Your task to perform on an android device: turn off notifications settings in the gmail app Image 0: 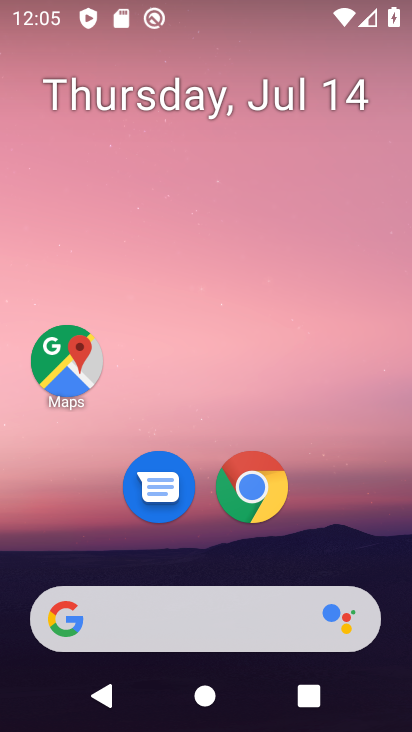
Step 0: drag from (205, 497) to (167, 203)
Your task to perform on an android device: turn off notifications settings in the gmail app Image 1: 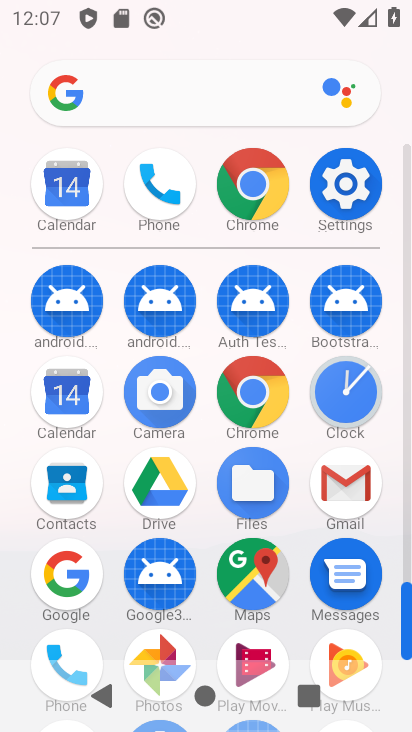
Step 1: click (347, 499)
Your task to perform on an android device: turn off notifications settings in the gmail app Image 2: 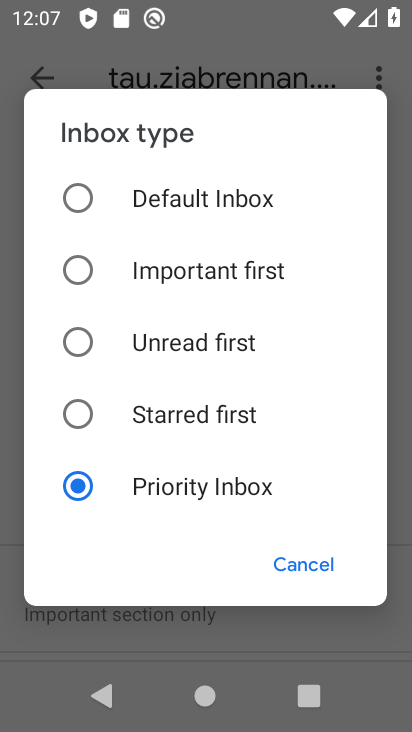
Step 2: click (318, 568)
Your task to perform on an android device: turn off notifications settings in the gmail app Image 3: 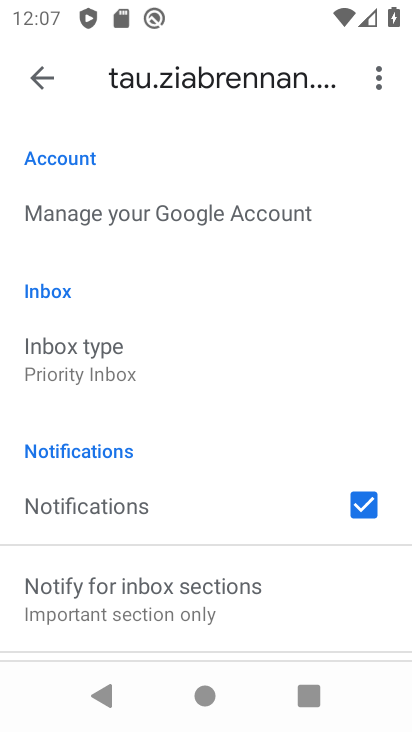
Step 3: click (46, 86)
Your task to perform on an android device: turn off notifications settings in the gmail app Image 4: 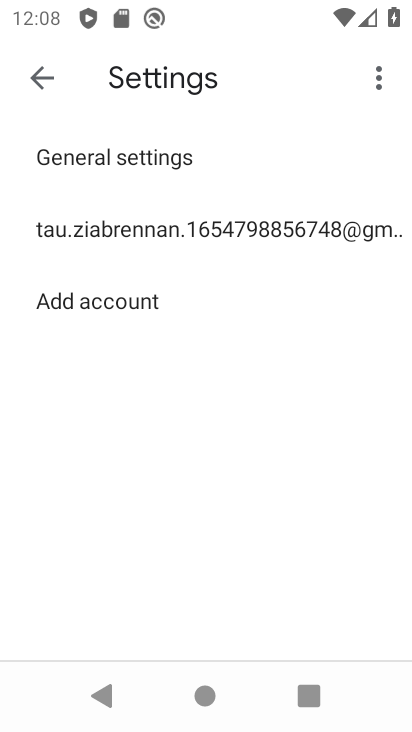
Step 4: click (94, 166)
Your task to perform on an android device: turn off notifications settings in the gmail app Image 5: 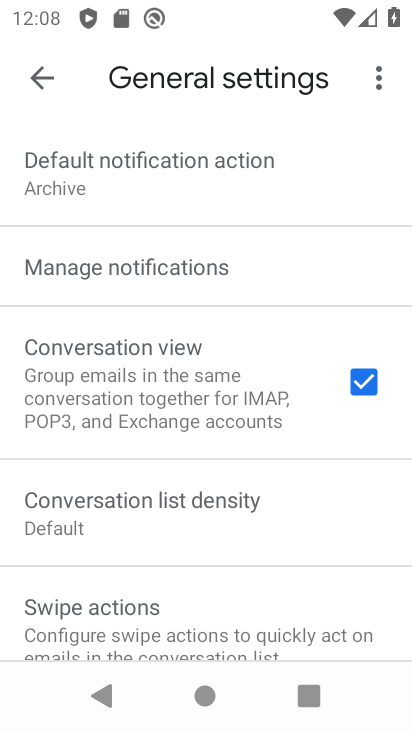
Step 5: click (145, 273)
Your task to perform on an android device: turn off notifications settings in the gmail app Image 6: 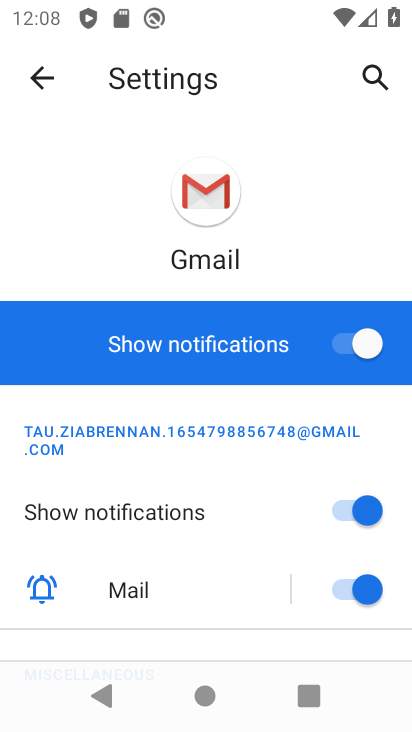
Step 6: click (333, 345)
Your task to perform on an android device: turn off notifications settings in the gmail app Image 7: 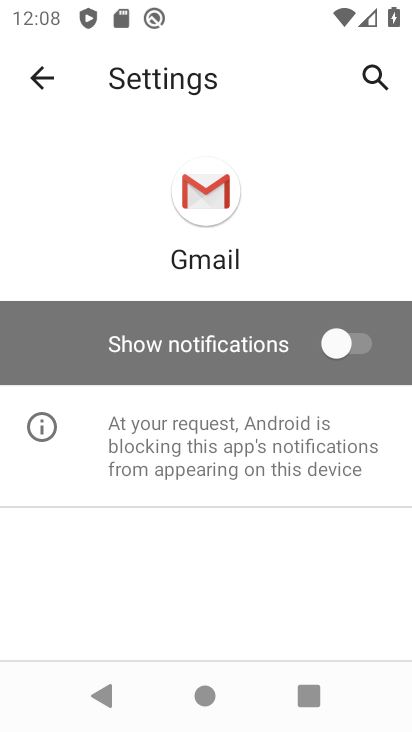
Step 7: task complete